Your task to perform on an android device: Play the last video I watched on Youtube Image 0: 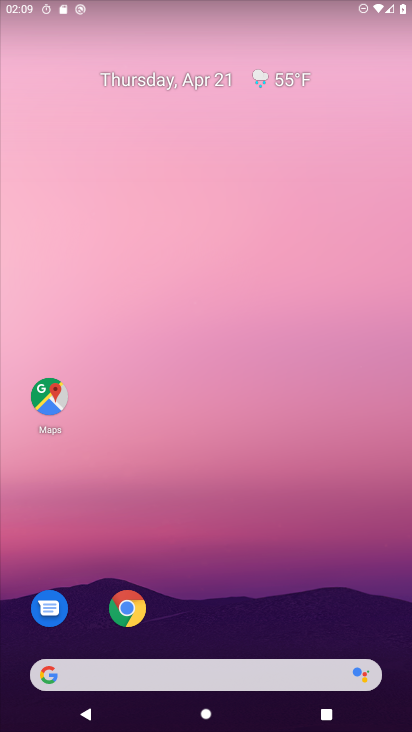
Step 0: drag from (172, 580) to (114, 59)
Your task to perform on an android device: Play the last video I watched on Youtube Image 1: 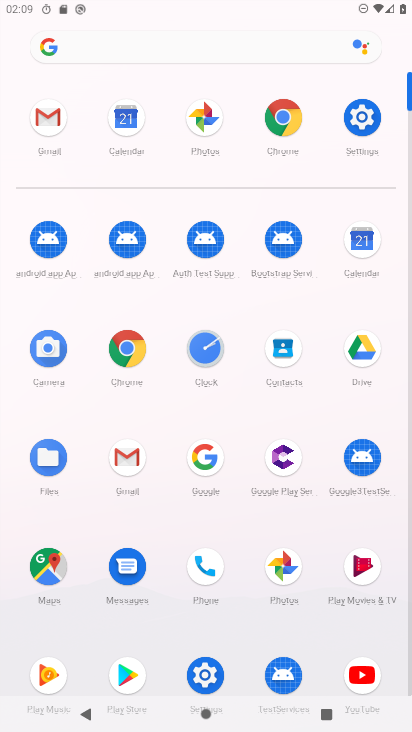
Step 1: click (354, 671)
Your task to perform on an android device: Play the last video I watched on Youtube Image 2: 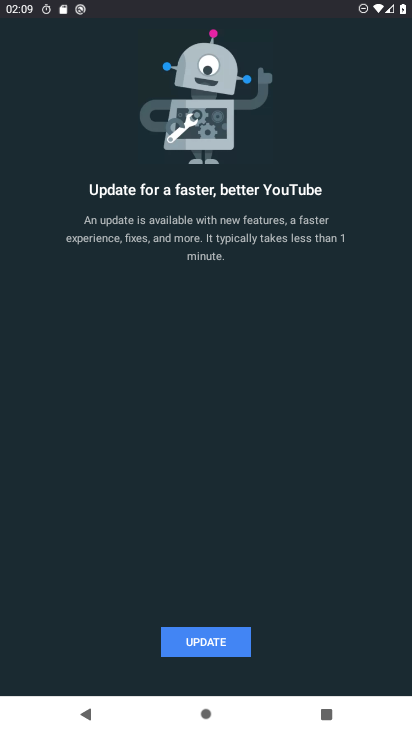
Step 2: click (214, 646)
Your task to perform on an android device: Play the last video I watched on Youtube Image 3: 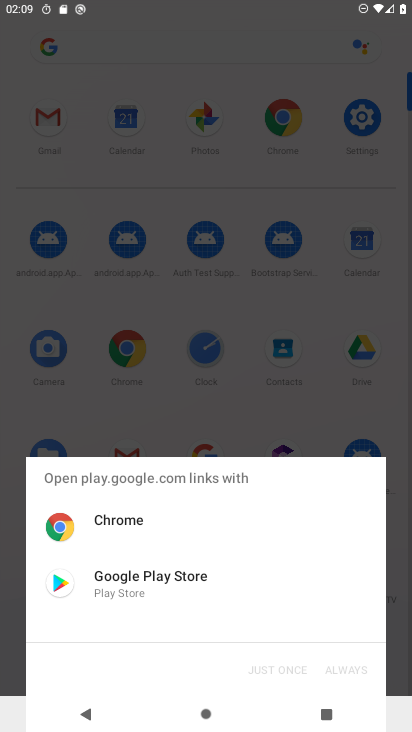
Step 3: click (129, 589)
Your task to perform on an android device: Play the last video I watched on Youtube Image 4: 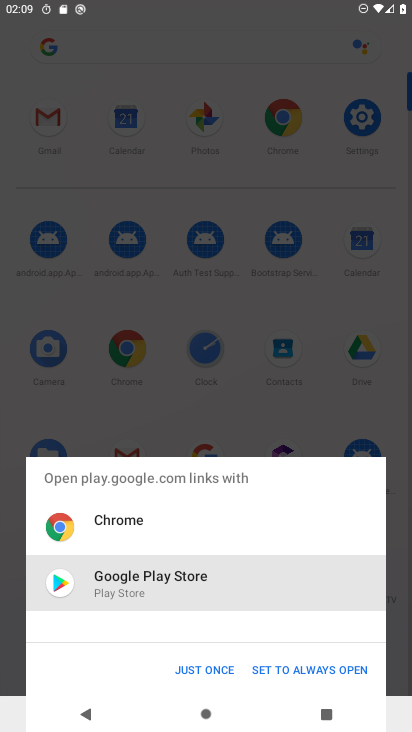
Step 4: click (198, 675)
Your task to perform on an android device: Play the last video I watched on Youtube Image 5: 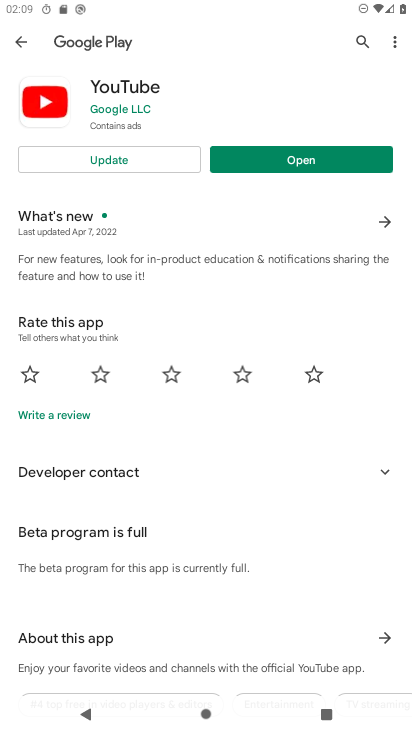
Step 5: click (106, 152)
Your task to perform on an android device: Play the last video I watched on Youtube Image 6: 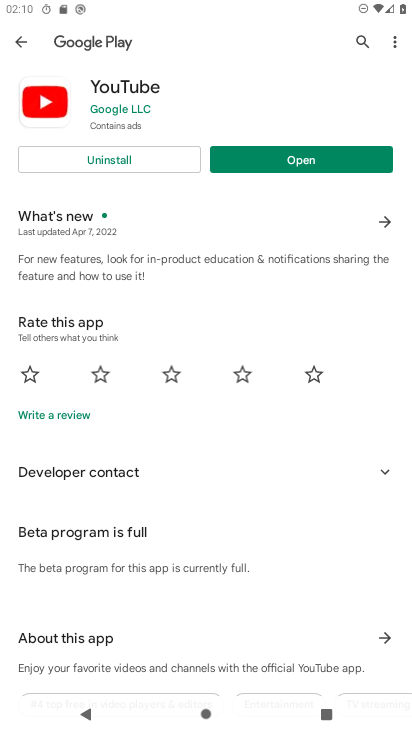
Step 6: click (306, 168)
Your task to perform on an android device: Play the last video I watched on Youtube Image 7: 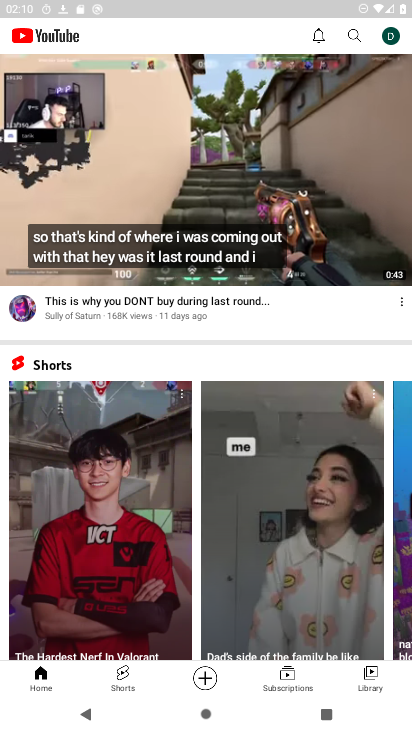
Step 7: click (366, 683)
Your task to perform on an android device: Play the last video I watched on Youtube Image 8: 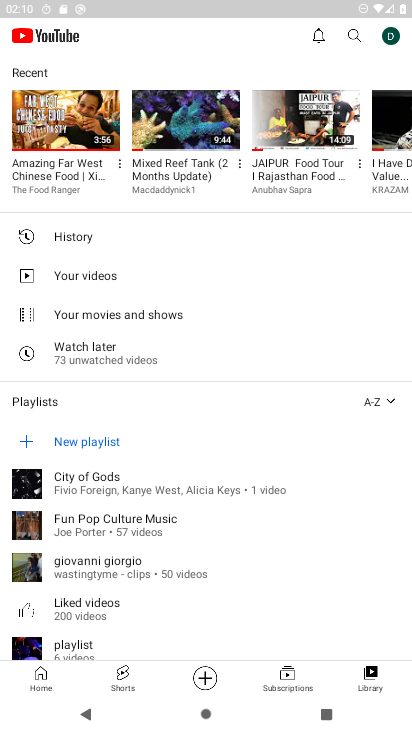
Step 8: click (70, 133)
Your task to perform on an android device: Play the last video I watched on Youtube Image 9: 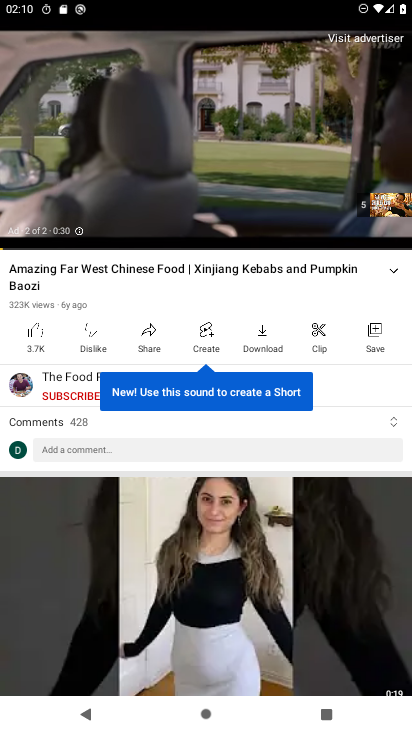
Step 9: click (219, 166)
Your task to perform on an android device: Play the last video I watched on Youtube Image 10: 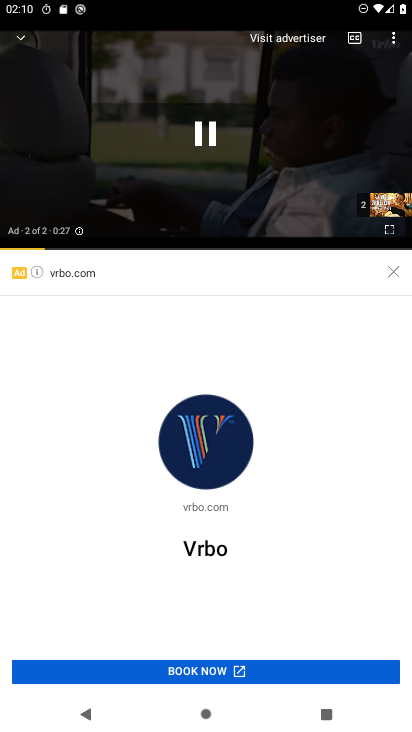
Step 10: click (400, 269)
Your task to perform on an android device: Play the last video I watched on Youtube Image 11: 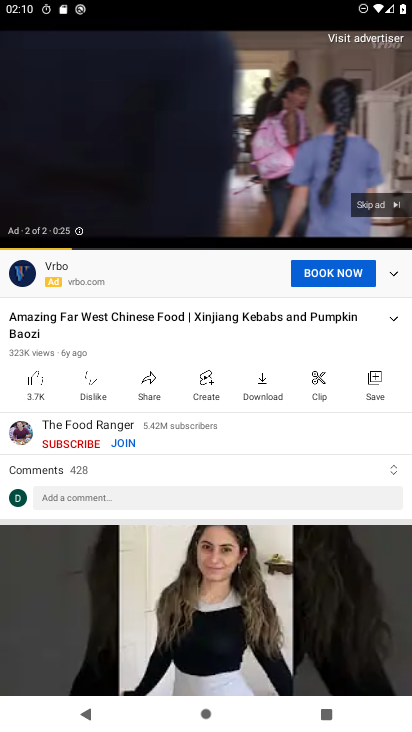
Step 11: click (368, 204)
Your task to perform on an android device: Play the last video I watched on Youtube Image 12: 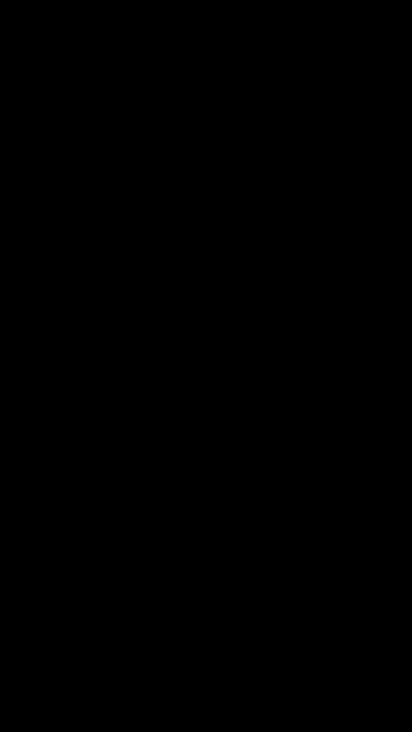
Step 12: task complete